Your task to perform on an android device: Open calendar and show me the second week of next month Image 0: 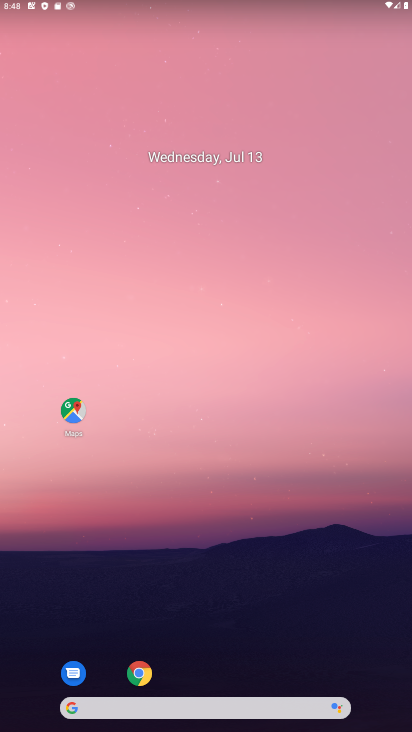
Step 0: drag from (355, 550) to (371, 163)
Your task to perform on an android device: Open calendar and show me the second week of next month Image 1: 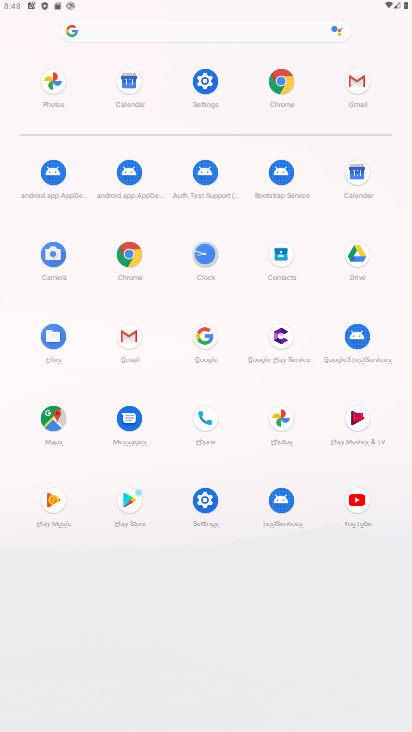
Step 1: click (358, 181)
Your task to perform on an android device: Open calendar and show me the second week of next month Image 2: 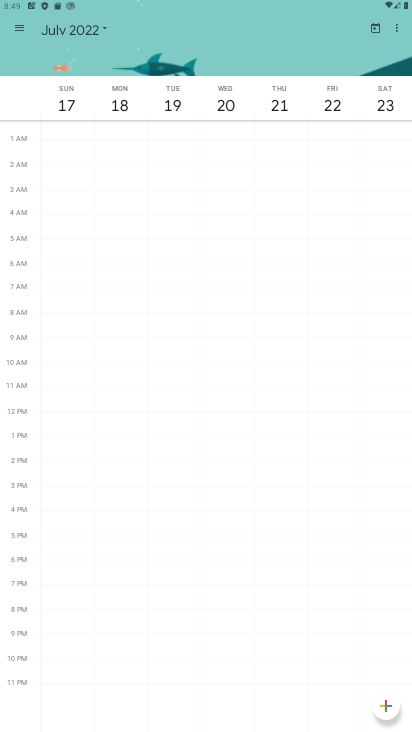
Step 2: click (82, 24)
Your task to perform on an android device: Open calendar and show me the second week of next month Image 3: 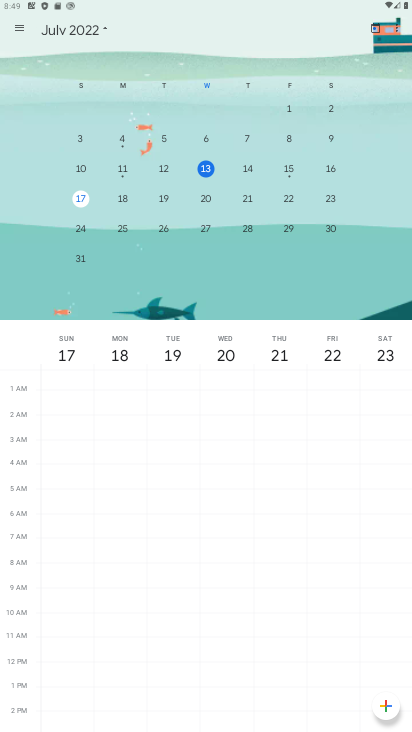
Step 3: drag from (332, 193) to (18, 137)
Your task to perform on an android device: Open calendar and show me the second week of next month Image 4: 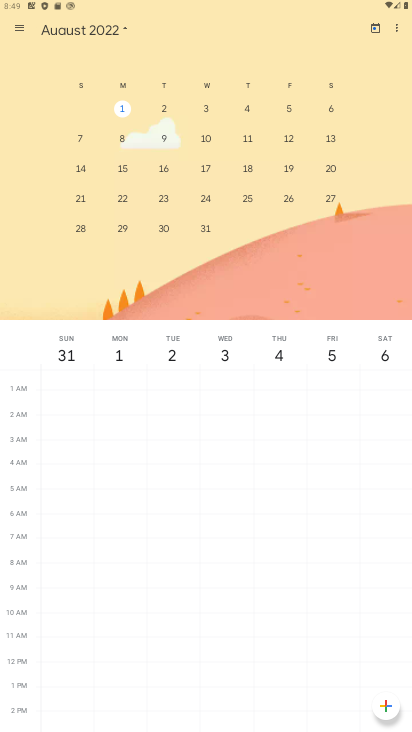
Step 4: click (164, 138)
Your task to perform on an android device: Open calendar and show me the second week of next month Image 5: 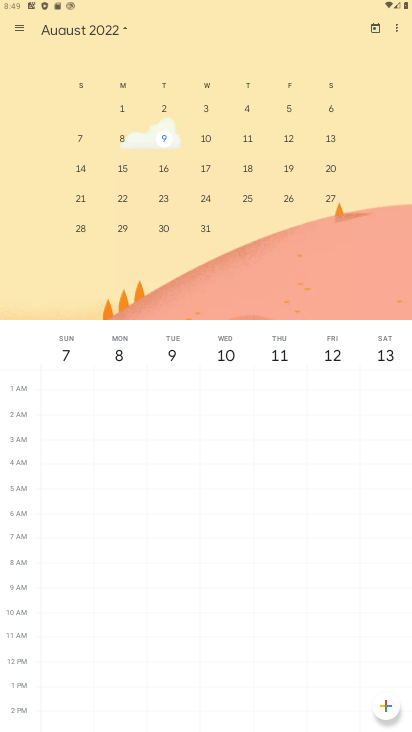
Step 5: task complete